Your task to perform on an android device: turn on location history Image 0: 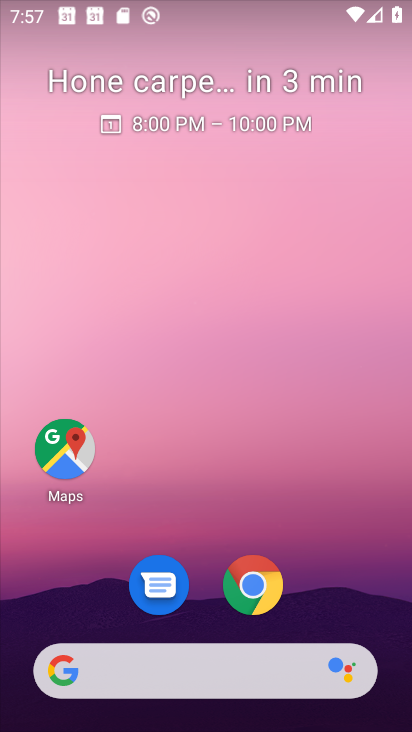
Step 0: drag from (304, 529) to (288, 111)
Your task to perform on an android device: turn on location history Image 1: 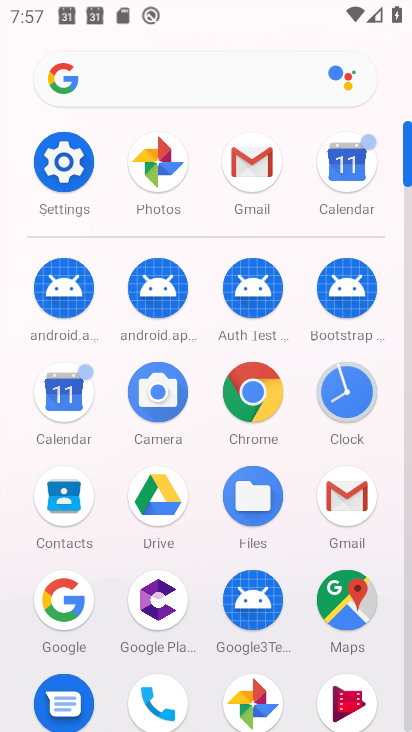
Step 1: click (56, 147)
Your task to perform on an android device: turn on location history Image 2: 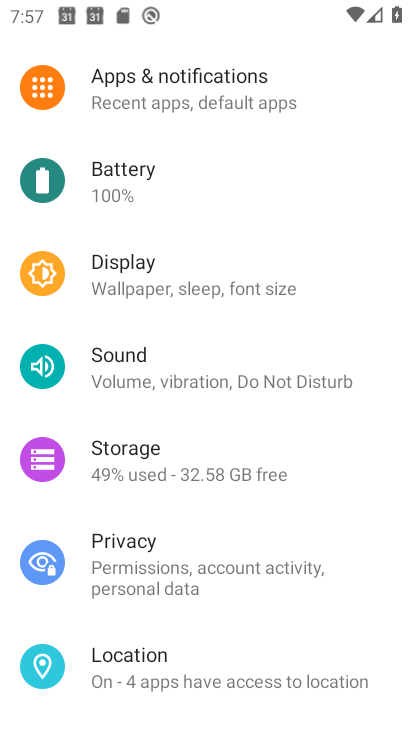
Step 2: click (180, 668)
Your task to perform on an android device: turn on location history Image 3: 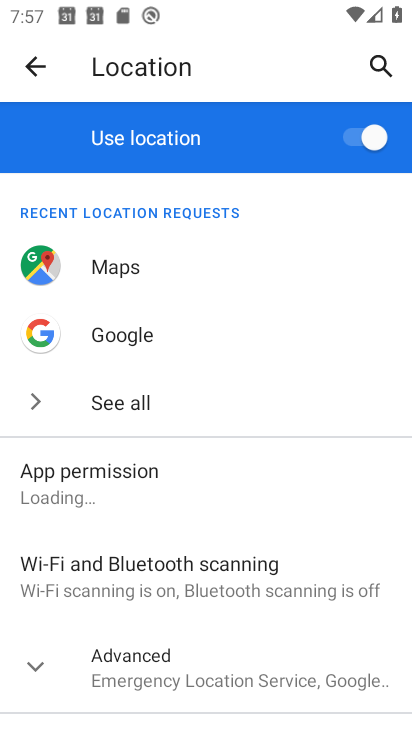
Step 3: click (36, 665)
Your task to perform on an android device: turn on location history Image 4: 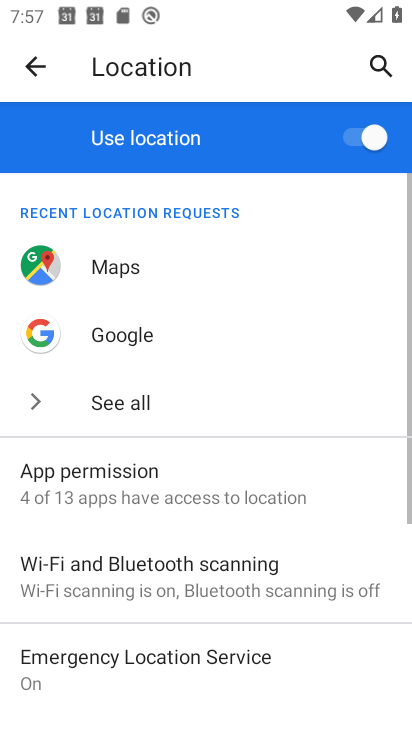
Step 4: drag from (235, 580) to (261, 213)
Your task to perform on an android device: turn on location history Image 5: 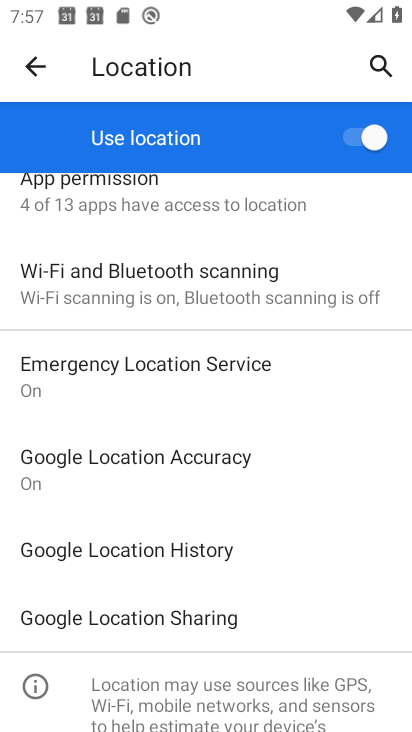
Step 5: click (160, 551)
Your task to perform on an android device: turn on location history Image 6: 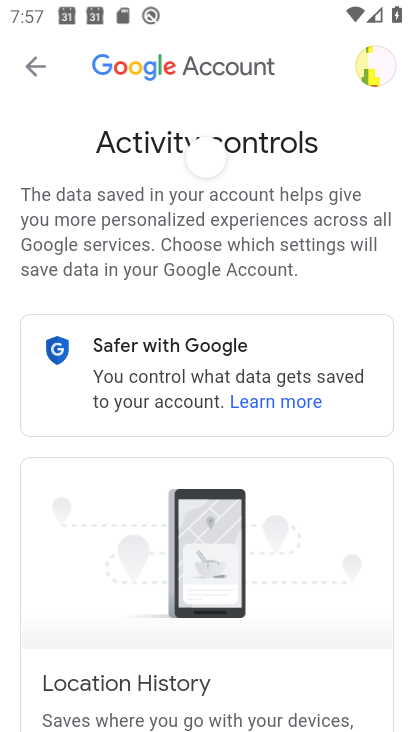
Step 6: drag from (305, 555) to (330, 299)
Your task to perform on an android device: turn on location history Image 7: 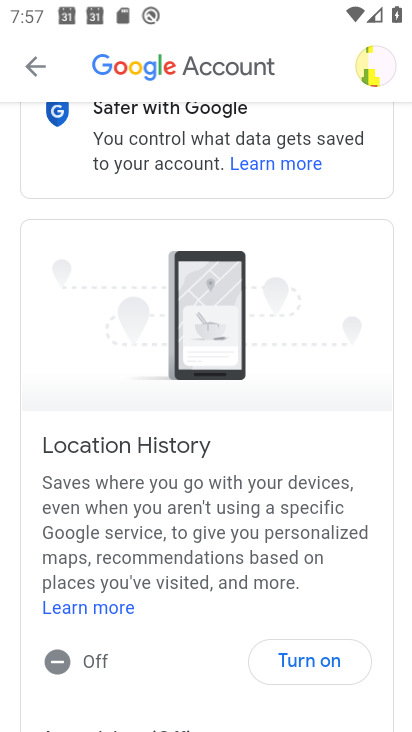
Step 7: click (311, 652)
Your task to perform on an android device: turn on location history Image 8: 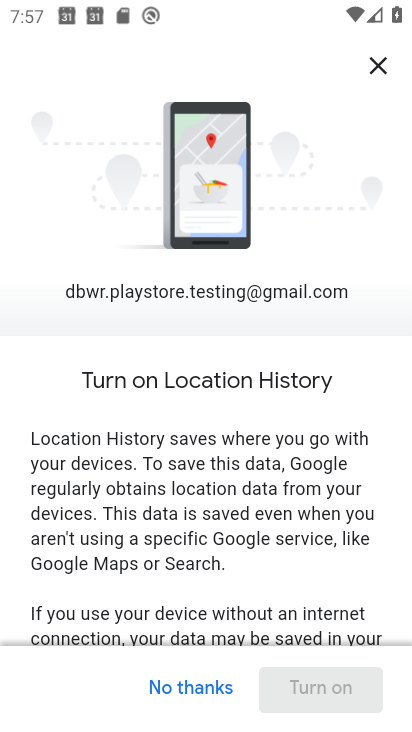
Step 8: drag from (321, 539) to (267, 77)
Your task to perform on an android device: turn on location history Image 9: 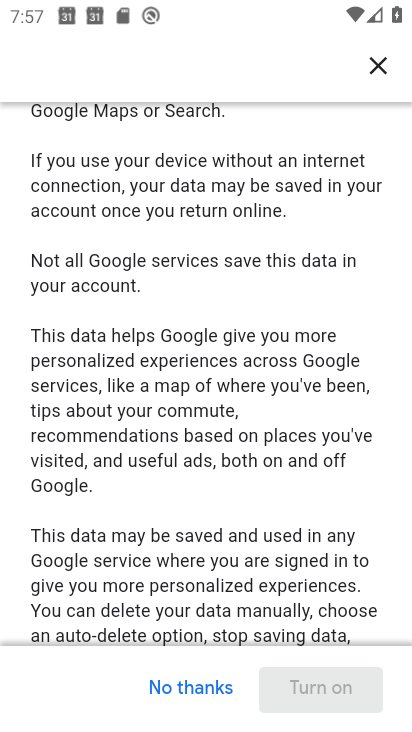
Step 9: drag from (281, 446) to (309, 157)
Your task to perform on an android device: turn on location history Image 10: 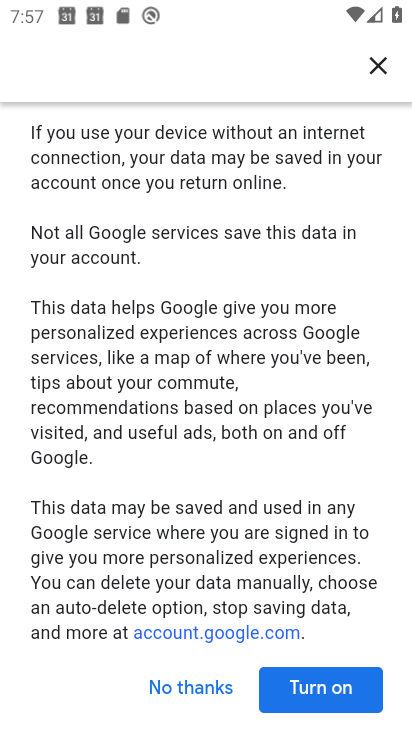
Step 10: click (317, 687)
Your task to perform on an android device: turn on location history Image 11: 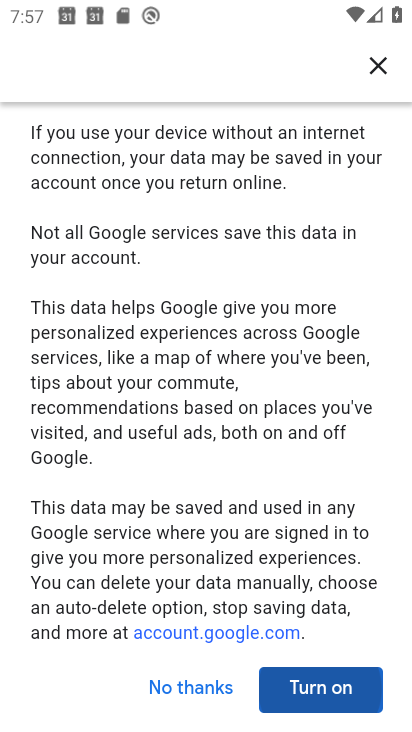
Step 11: click (317, 685)
Your task to perform on an android device: turn on location history Image 12: 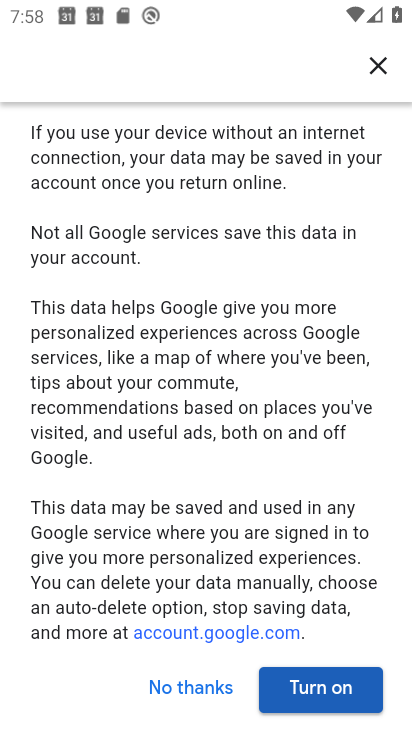
Step 12: click (329, 696)
Your task to perform on an android device: turn on location history Image 13: 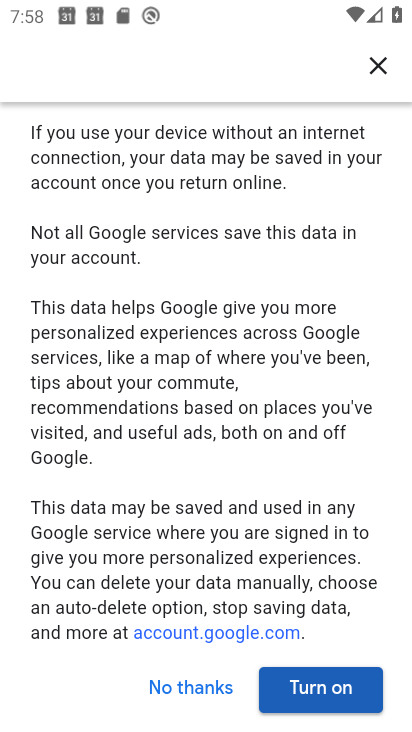
Step 13: click (344, 681)
Your task to perform on an android device: turn on location history Image 14: 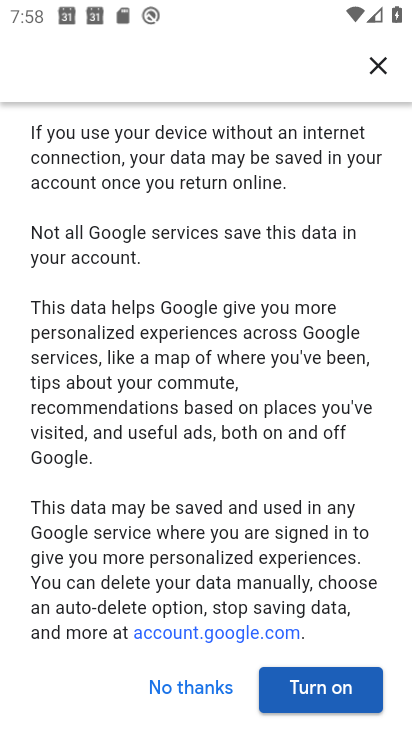
Step 14: click (345, 687)
Your task to perform on an android device: turn on location history Image 15: 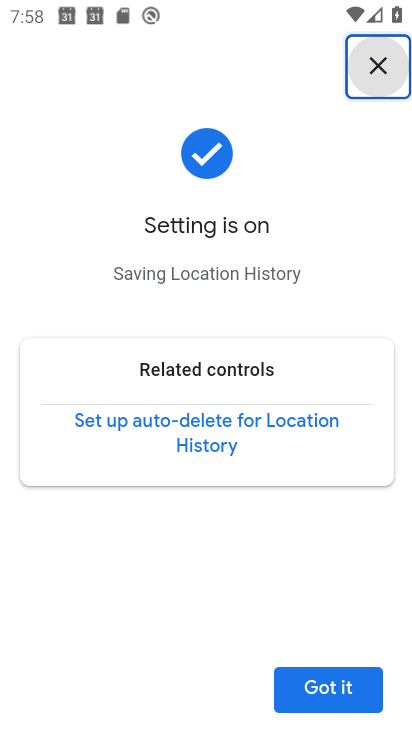
Step 15: click (345, 684)
Your task to perform on an android device: turn on location history Image 16: 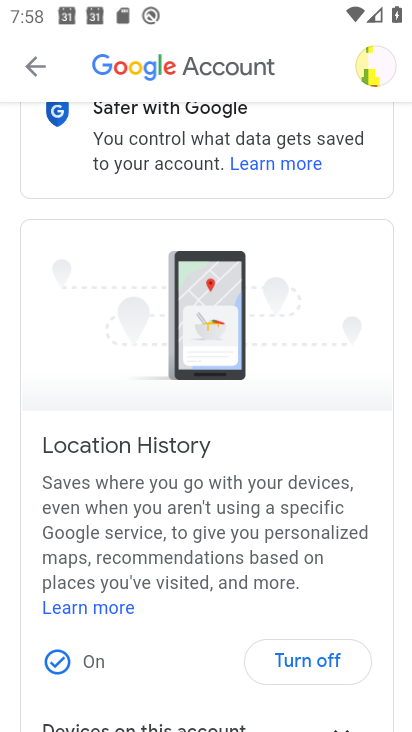
Step 16: task complete